Your task to perform on an android device: snooze an email in the gmail app Image 0: 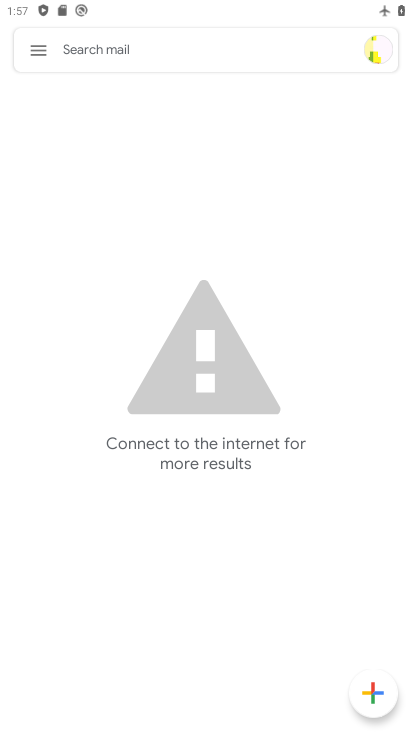
Step 0: click (32, 61)
Your task to perform on an android device: snooze an email in the gmail app Image 1: 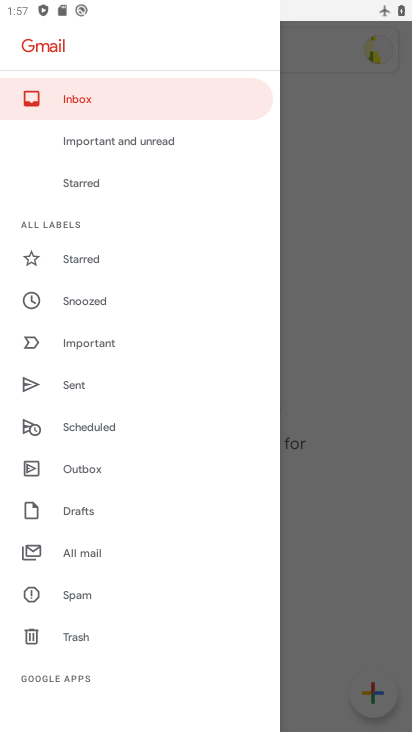
Step 1: click (138, 546)
Your task to perform on an android device: snooze an email in the gmail app Image 2: 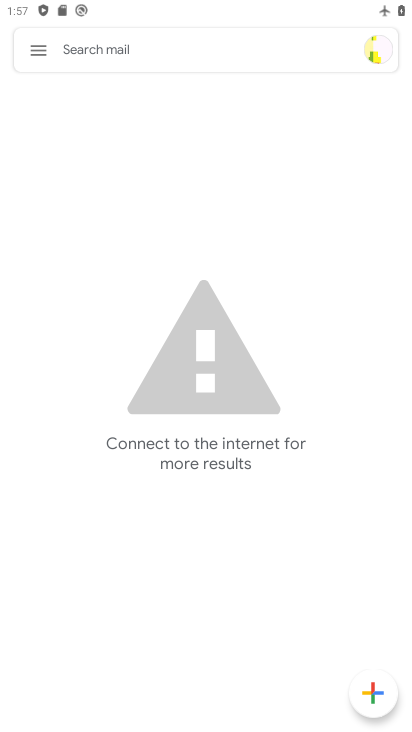
Step 2: task complete